Your task to perform on an android device: stop showing notifications on the lock screen Image 0: 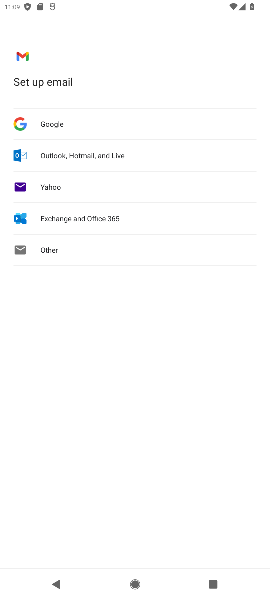
Step 0: press home button
Your task to perform on an android device: stop showing notifications on the lock screen Image 1: 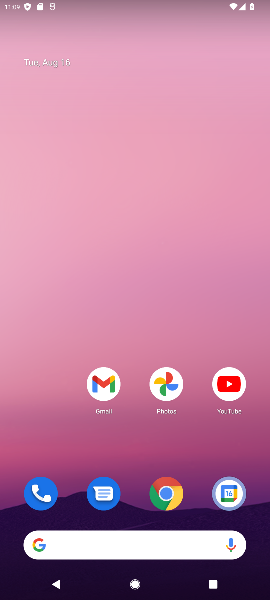
Step 1: drag from (112, 518) to (124, 175)
Your task to perform on an android device: stop showing notifications on the lock screen Image 2: 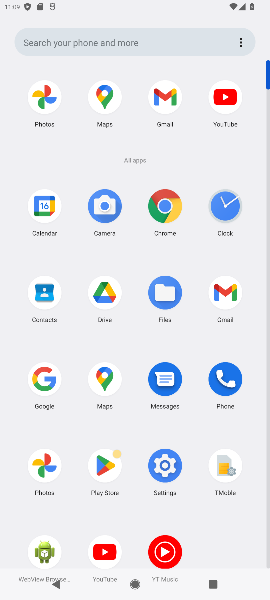
Step 2: click (171, 463)
Your task to perform on an android device: stop showing notifications on the lock screen Image 3: 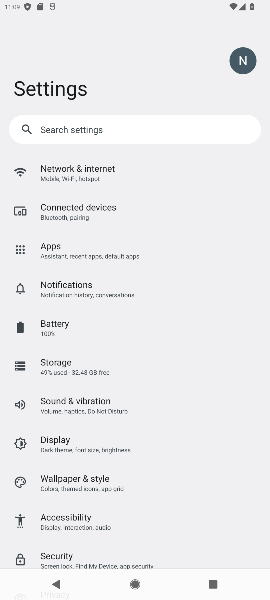
Step 3: drag from (67, 551) to (74, 251)
Your task to perform on an android device: stop showing notifications on the lock screen Image 4: 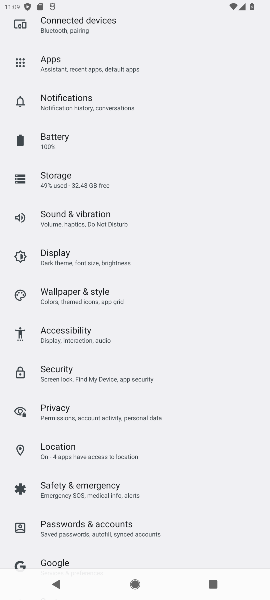
Step 4: click (41, 403)
Your task to perform on an android device: stop showing notifications on the lock screen Image 5: 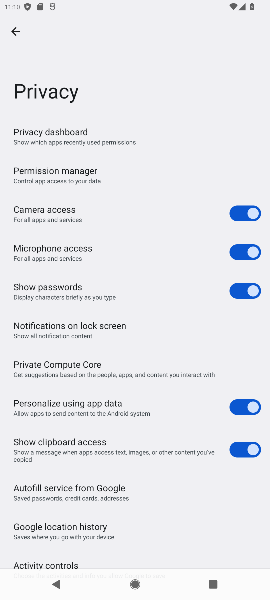
Step 5: click (58, 334)
Your task to perform on an android device: stop showing notifications on the lock screen Image 6: 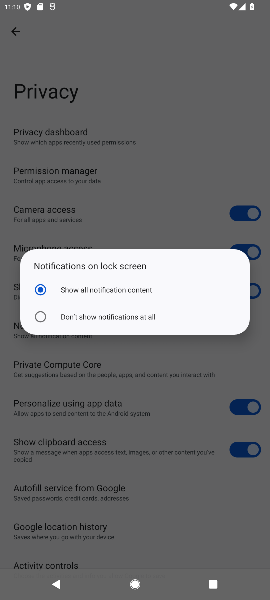
Step 6: click (62, 316)
Your task to perform on an android device: stop showing notifications on the lock screen Image 7: 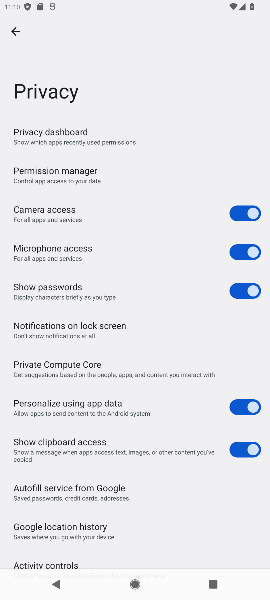
Step 7: task complete